Your task to perform on an android device: turn off wifi Image 0: 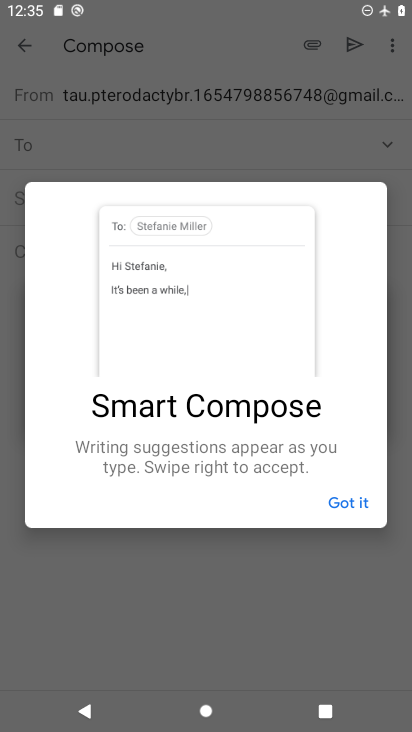
Step 0: press home button
Your task to perform on an android device: turn off wifi Image 1: 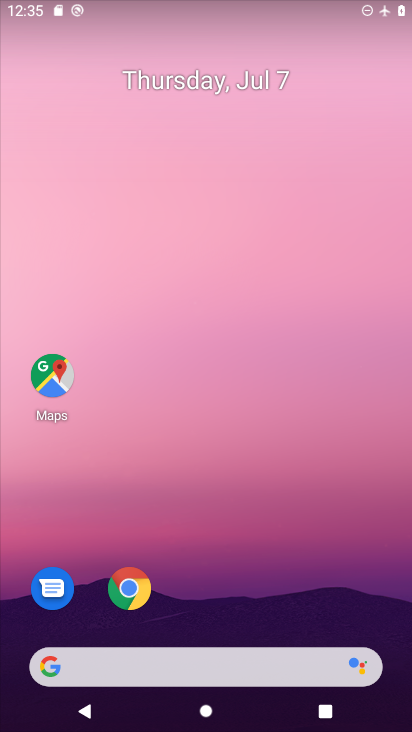
Step 1: drag from (238, 686) to (319, 92)
Your task to perform on an android device: turn off wifi Image 2: 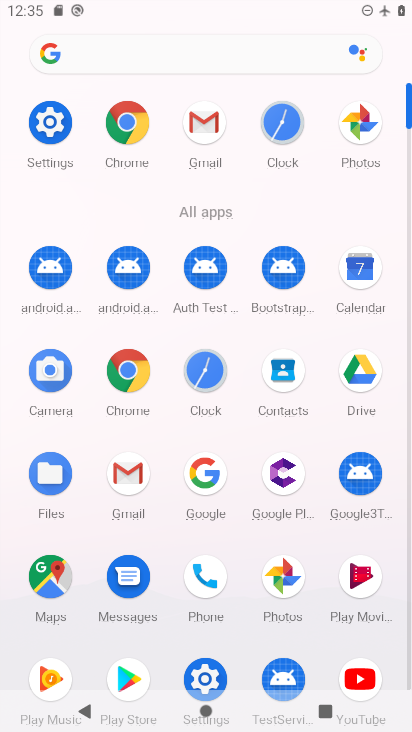
Step 2: click (202, 677)
Your task to perform on an android device: turn off wifi Image 3: 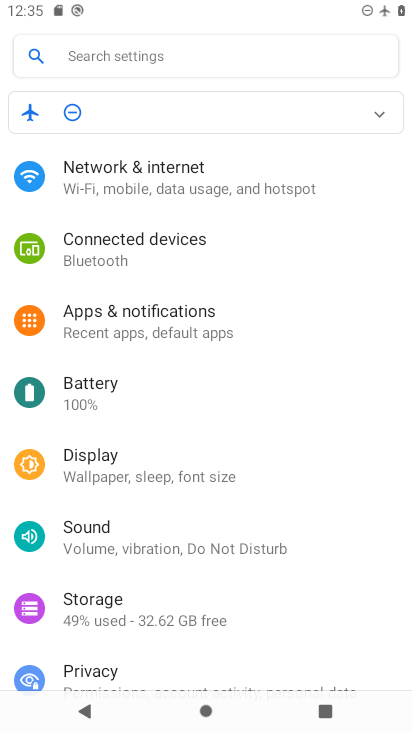
Step 3: click (224, 175)
Your task to perform on an android device: turn off wifi Image 4: 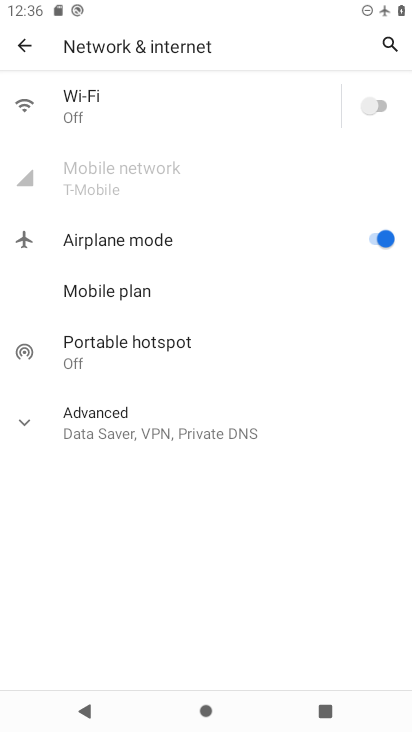
Step 4: click (185, 98)
Your task to perform on an android device: turn off wifi Image 5: 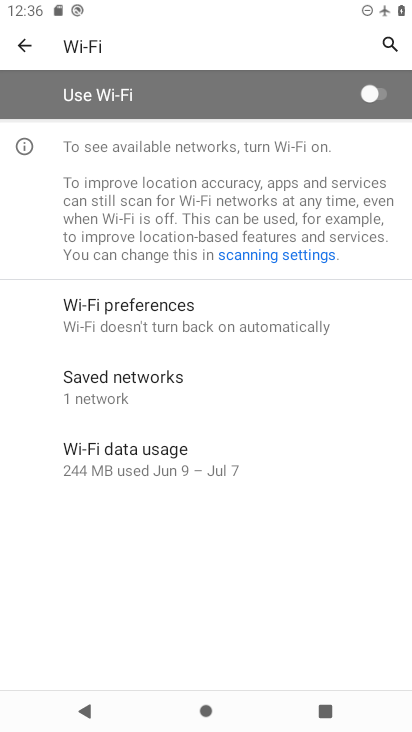
Step 5: task complete